Your task to perform on an android device: check battery use Image 0: 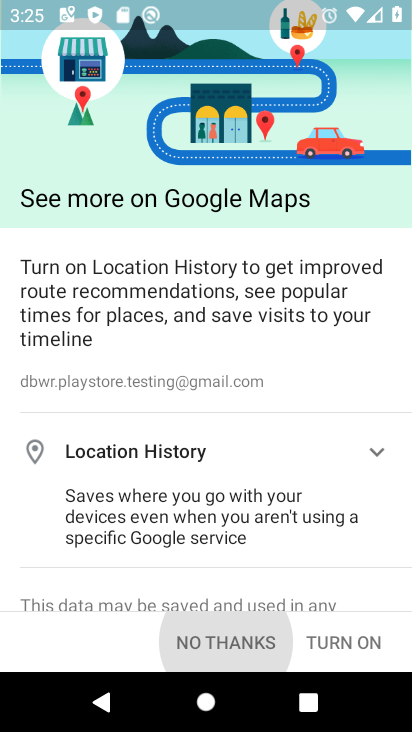
Step 0: press home button
Your task to perform on an android device: check battery use Image 1: 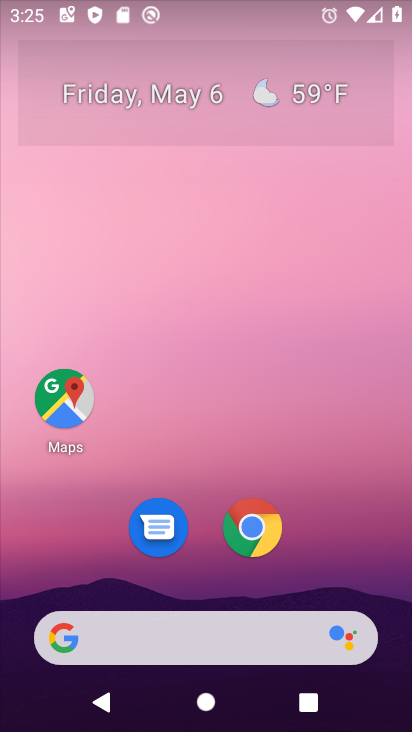
Step 1: drag from (359, 537) to (287, 89)
Your task to perform on an android device: check battery use Image 2: 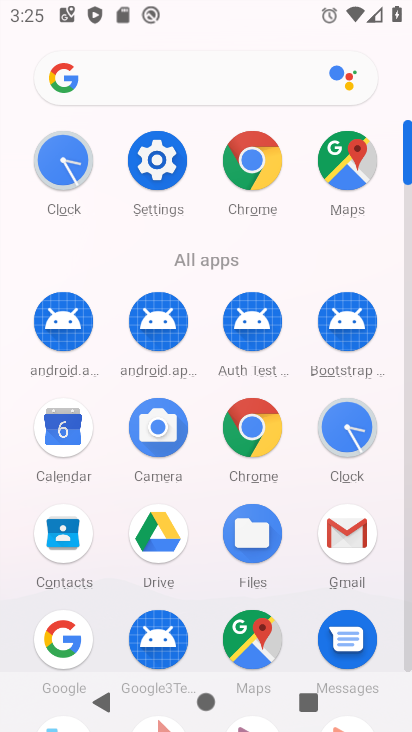
Step 2: click (159, 155)
Your task to perform on an android device: check battery use Image 3: 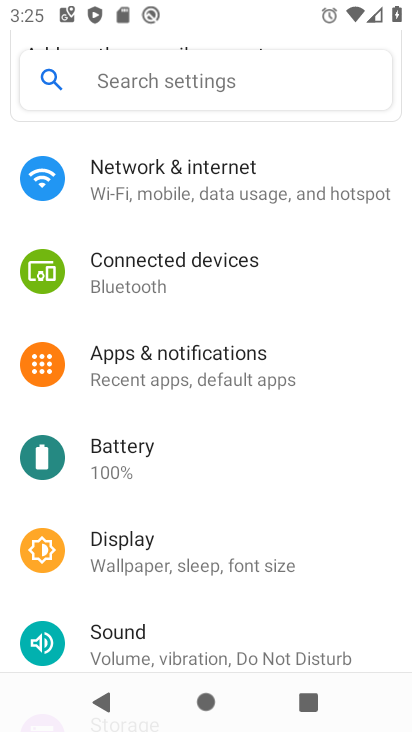
Step 3: drag from (232, 527) to (250, 178)
Your task to perform on an android device: check battery use Image 4: 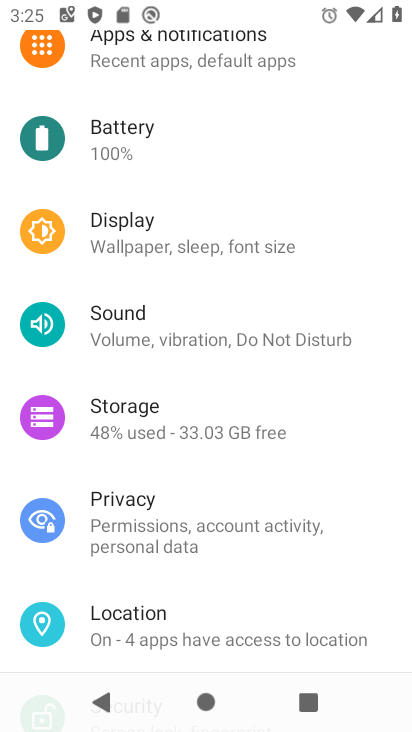
Step 4: click (167, 146)
Your task to perform on an android device: check battery use Image 5: 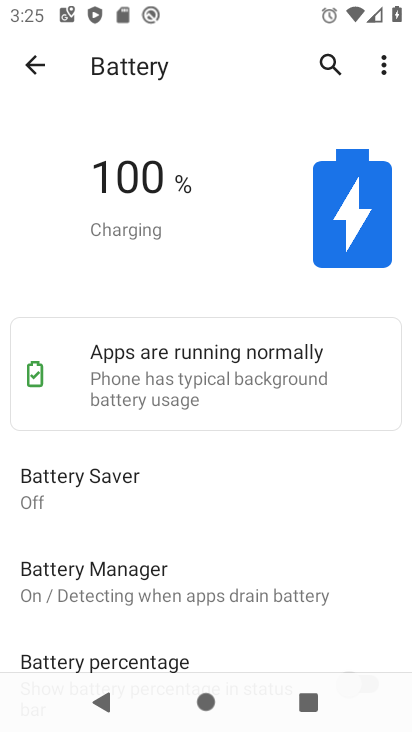
Step 5: click (391, 64)
Your task to perform on an android device: check battery use Image 6: 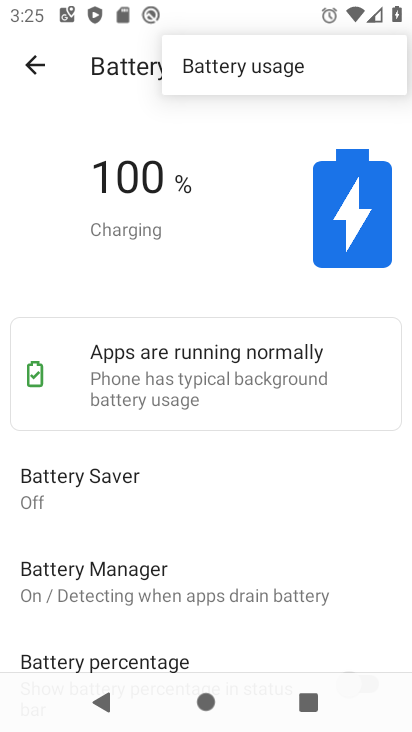
Step 6: click (315, 61)
Your task to perform on an android device: check battery use Image 7: 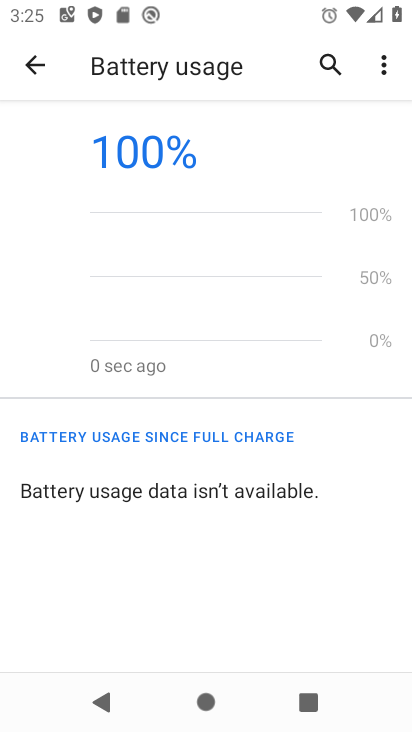
Step 7: task complete